Your task to perform on an android device: toggle pop-ups in chrome Image 0: 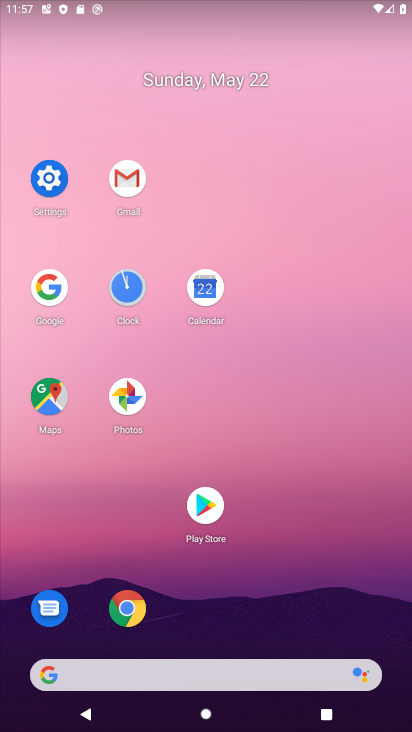
Step 0: click (139, 617)
Your task to perform on an android device: toggle pop-ups in chrome Image 1: 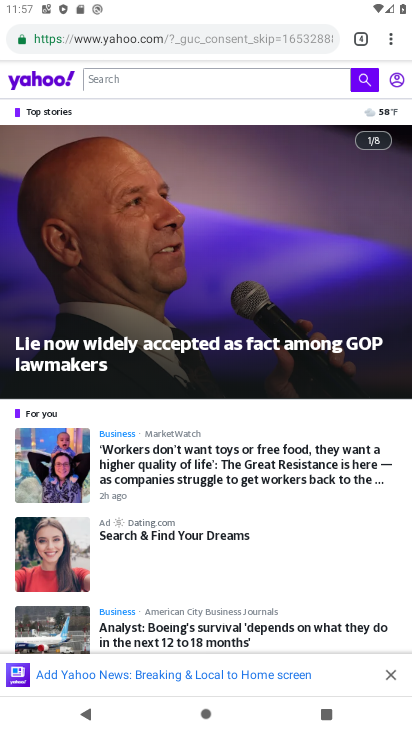
Step 1: click (391, 44)
Your task to perform on an android device: toggle pop-ups in chrome Image 2: 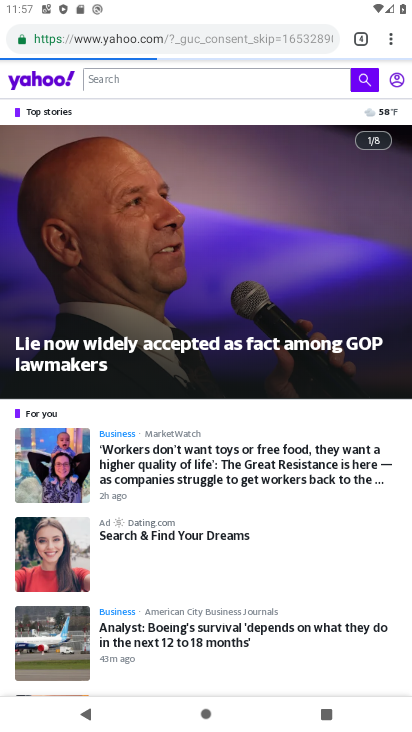
Step 2: click (400, 30)
Your task to perform on an android device: toggle pop-ups in chrome Image 3: 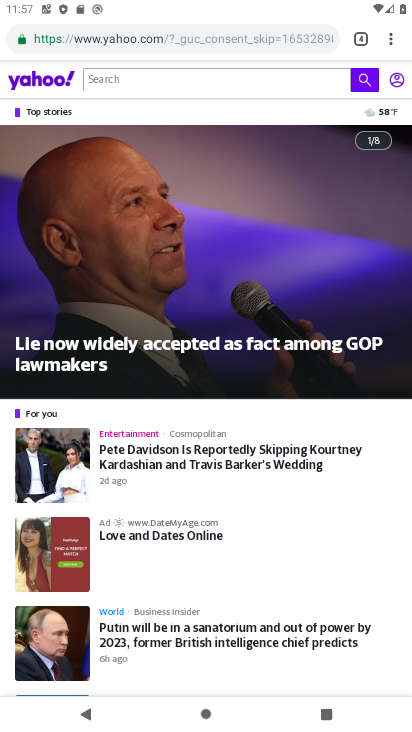
Step 3: click (394, 47)
Your task to perform on an android device: toggle pop-ups in chrome Image 4: 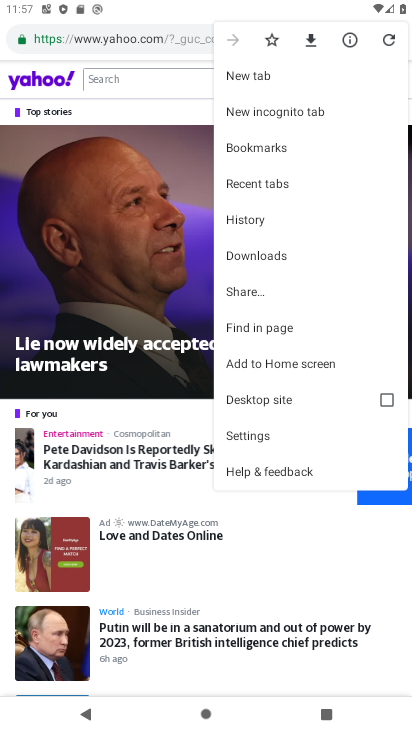
Step 4: drag from (259, 418) to (303, 127)
Your task to perform on an android device: toggle pop-ups in chrome Image 5: 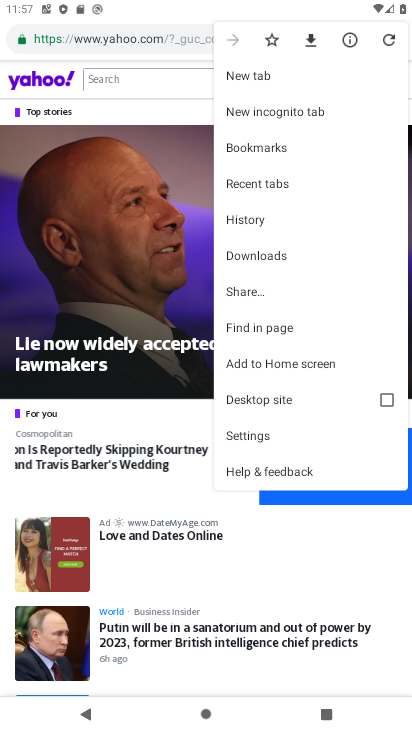
Step 5: click (265, 437)
Your task to perform on an android device: toggle pop-ups in chrome Image 6: 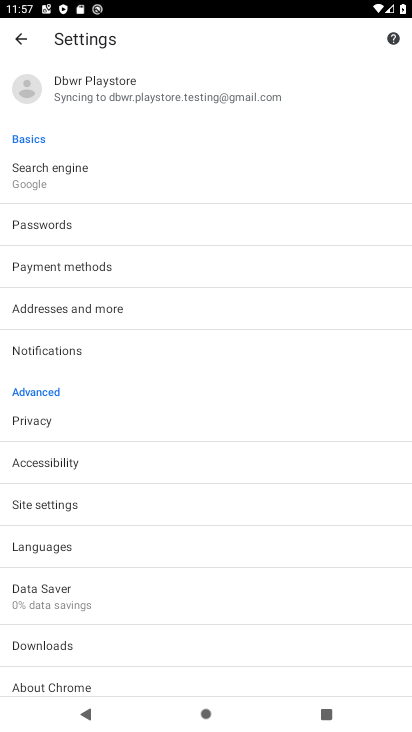
Step 6: click (127, 505)
Your task to perform on an android device: toggle pop-ups in chrome Image 7: 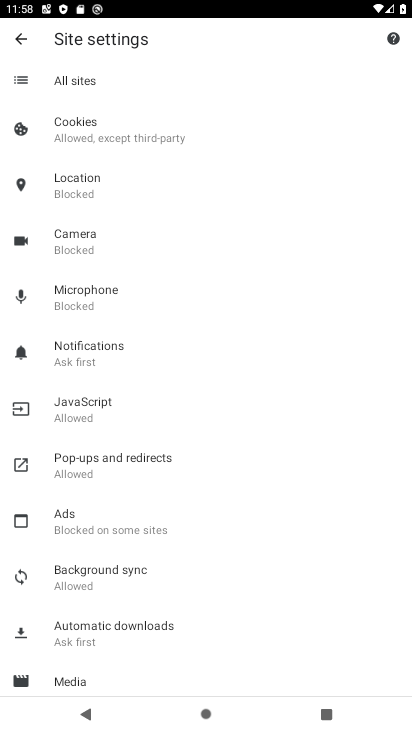
Step 7: drag from (190, 610) to (189, 255)
Your task to perform on an android device: toggle pop-ups in chrome Image 8: 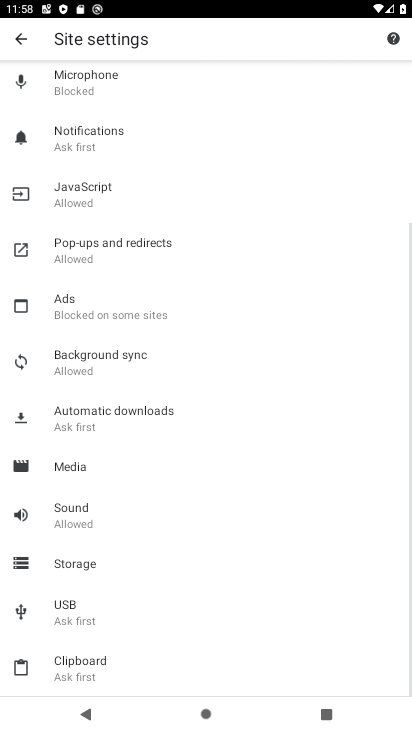
Step 8: click (188, 250)
Your task to perform on an android device: toggle pop-ups in chrome Image 9: 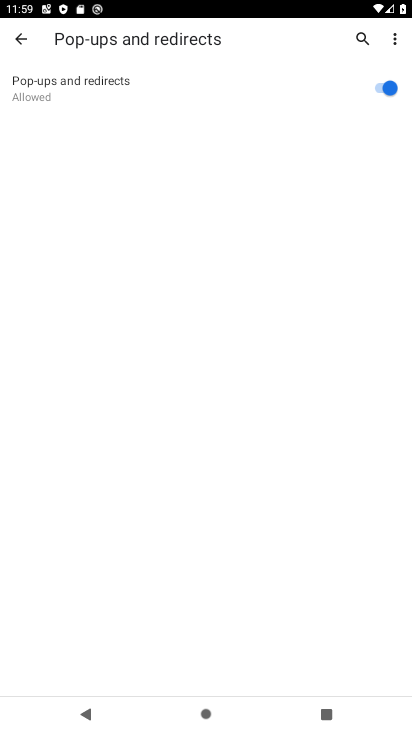
Step 9: task complete